Your task to perform on an android device: Go to wifi settings Image 0: 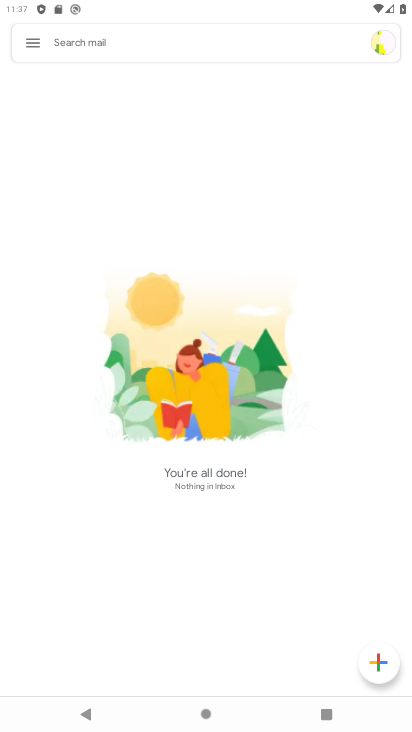
Step 0: press home button
Your task to perform on an android device: Go to wifi settings Image 1: 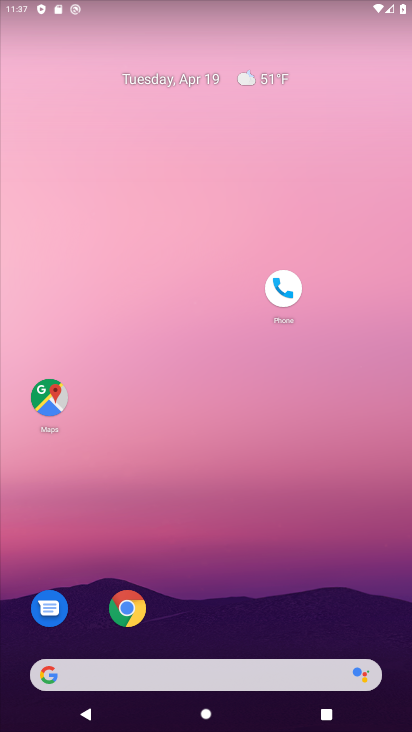
Step 1: drag from (169, 636) to (194, 152)
Your task to perform on an android device: Go to wifi settings Image 2: 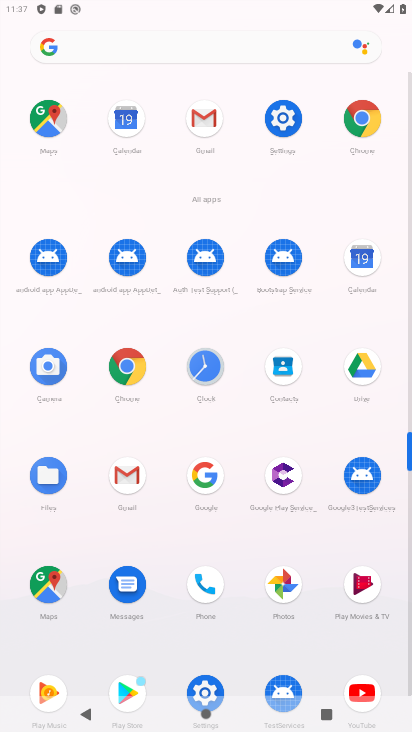
Step 2: click (280, 120)
Your task to perform on an android device: Go to wifi settings Image 3: 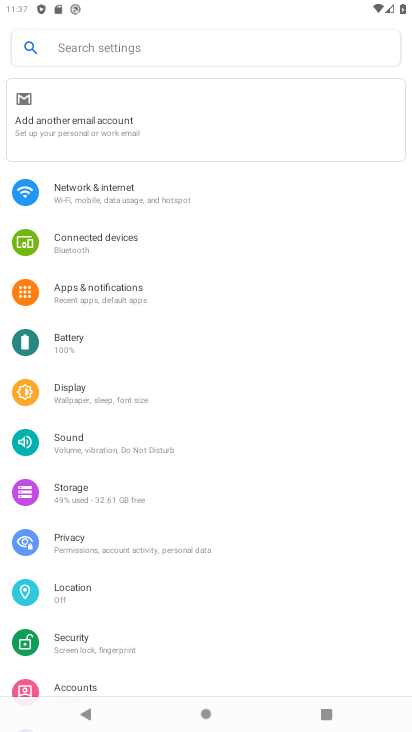
Step 3: click (149, 195)
Your task to perform on an android device: Go to wifi settings Image 4: 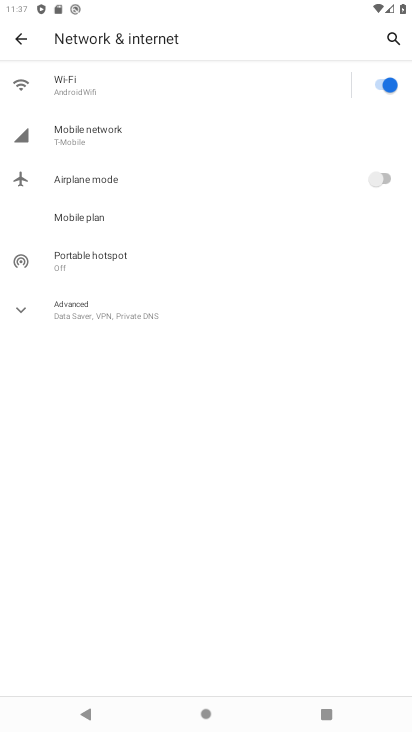
Step 4: click (89, 96)
Your task to perform on an android device: Go to wifi settings Image 5: 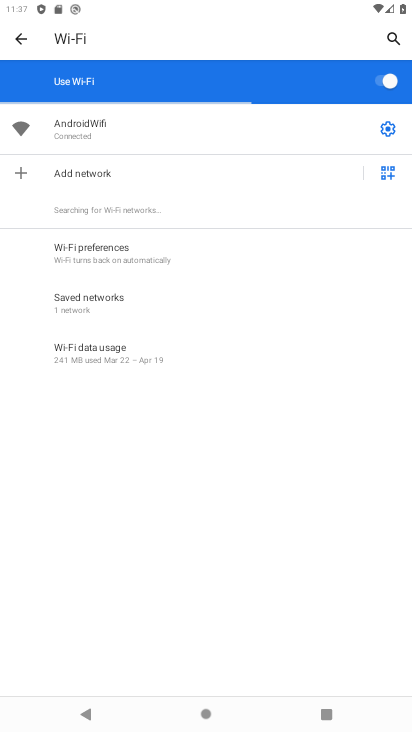
Step 5: task complete